Your task to perform on an android device: Open Android settings Image 0: 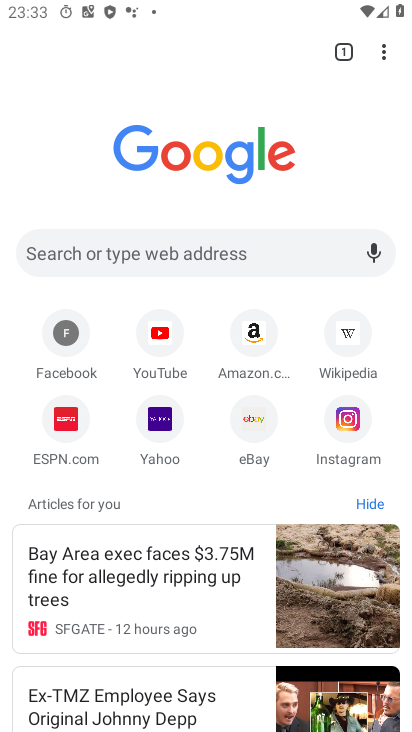
Step 0: press home button
Your task to perform on an android device: Open Android settings Image 1: 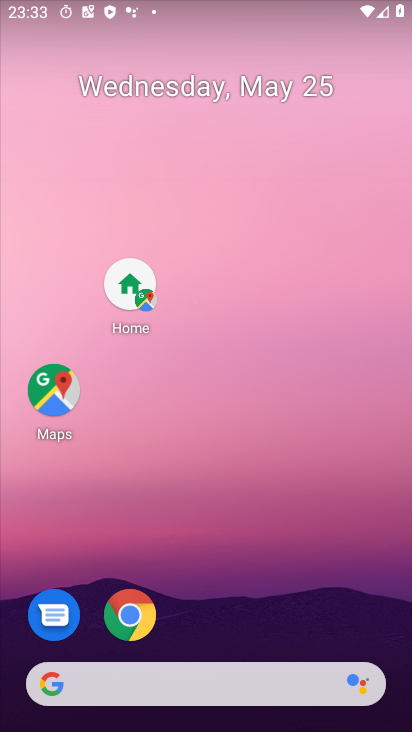
Step 1: drag from (266, 610) to (262, 76)
Your task to perform on an android device: Open Android settings Image 2: 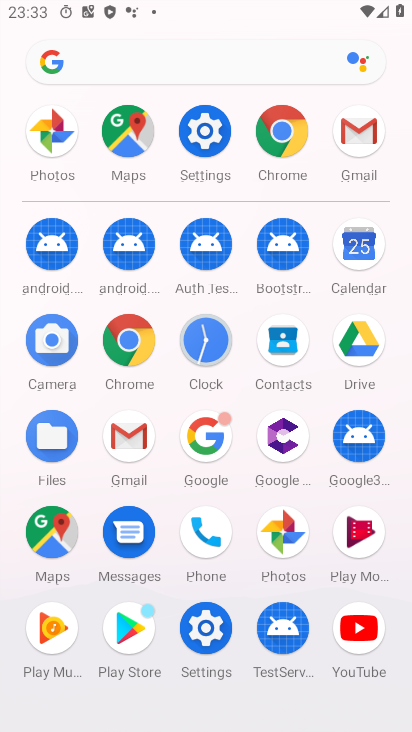
Step 2: click (209, 113)
Your task to perform on an android device: Open Android settings Image 3: 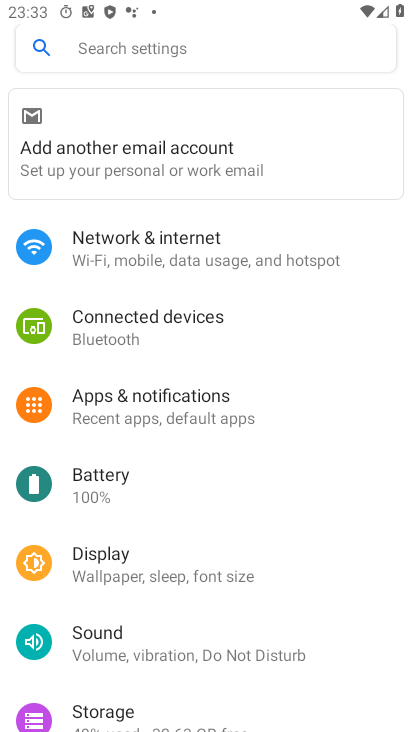
Step 3: drag from (318, 599) to (258, 16)
Your task to perform on an android device: Open Android settings Image 4: 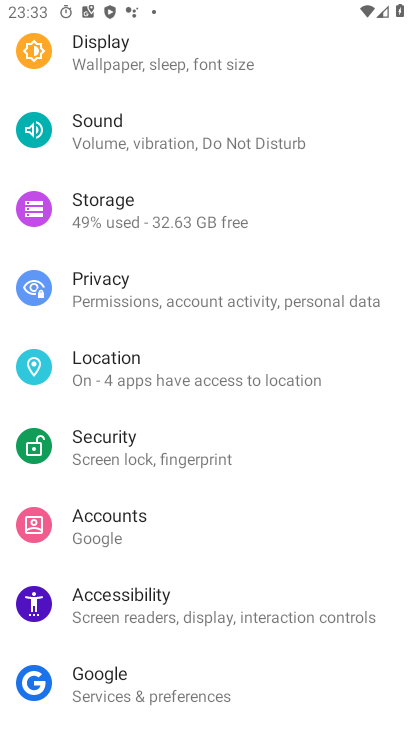
Step 4: drag from (360, 657) to (324, 1)
Your task to perform on an android device: Open Android settings Image 5: 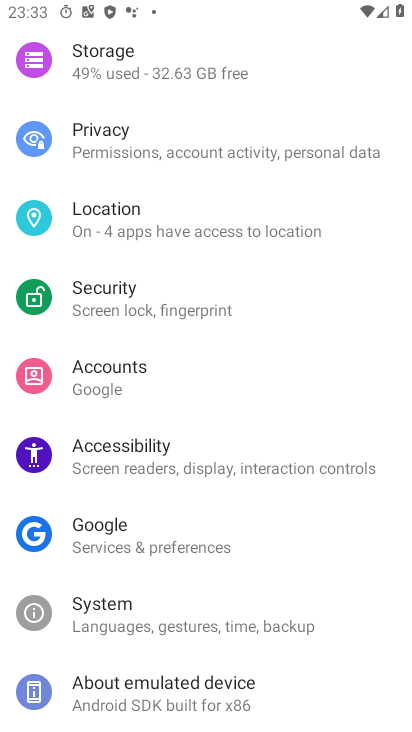
Step 5: click (150, 681)
Your task to perform on an android device: Open Android settings Image 6: 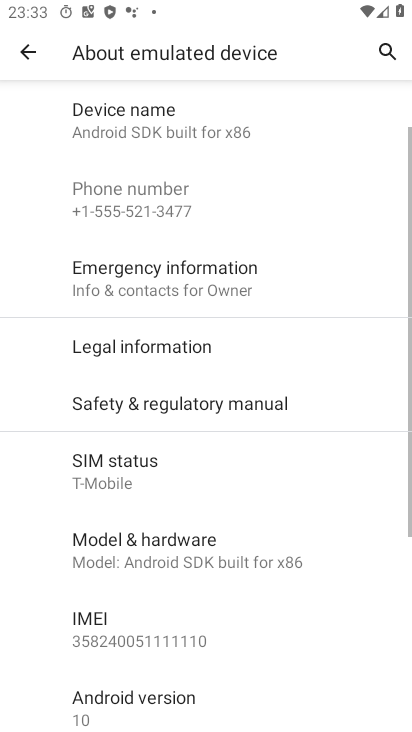
Step 6: task complete